Your task to perform on an android device: What's the weather today? Image 0: 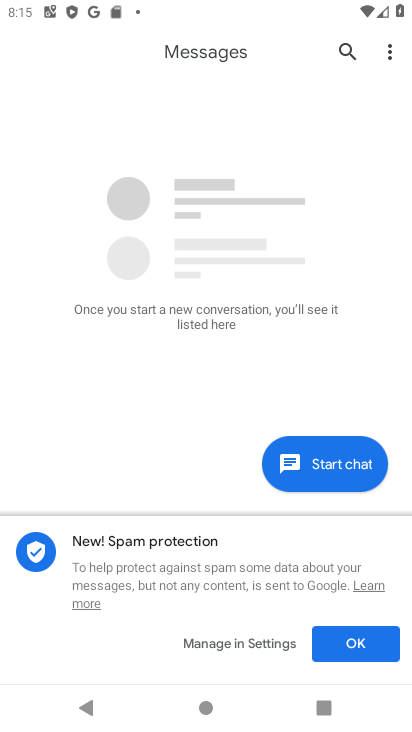
Step 0: press home button
Your task to perform on an android device: What's the weather today? Image 1: 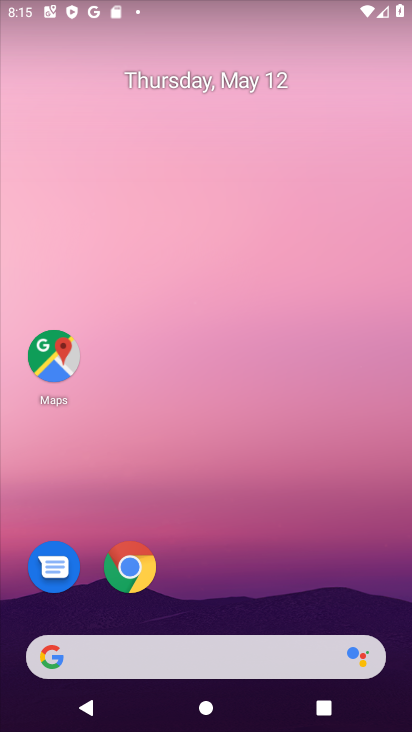
Step 1: drag from (276, 609) to (266, 146)
Your task to perform on an android device: What's the weather today? Image 2: 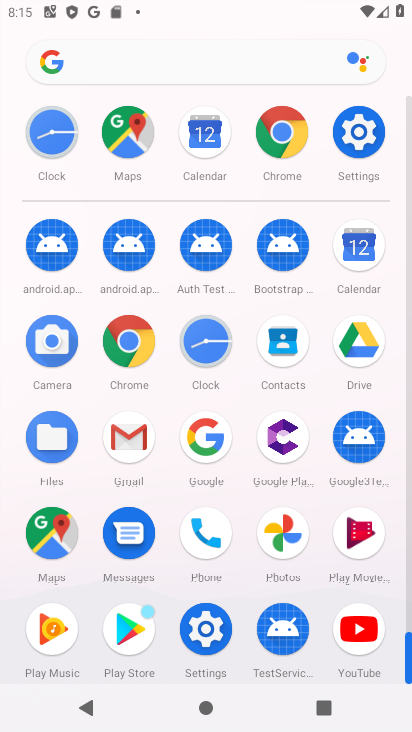
Step 2: click (212, 446)
Your task to perform on an android device: What's the weather today? Image 3: 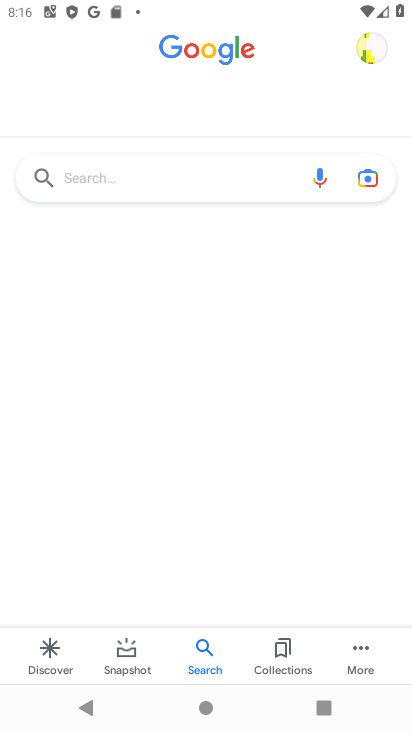
Step 3: click (93, 172)
Your task to perform on an android device: What's the weather today? Image 4: 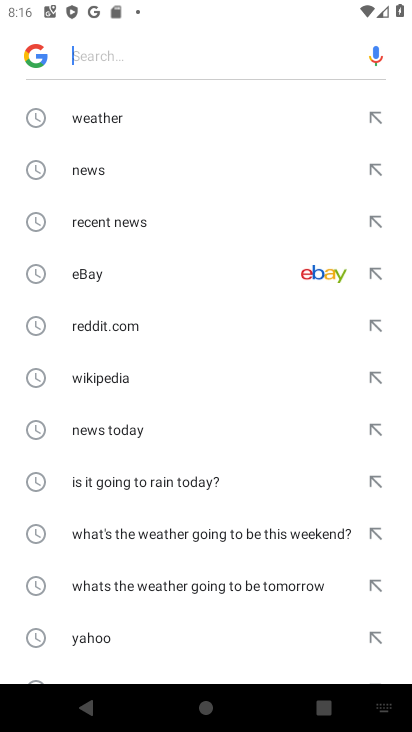
Step 4: click (132, 117)
Your task to perform on an android device: What's the weather today? Image 5: 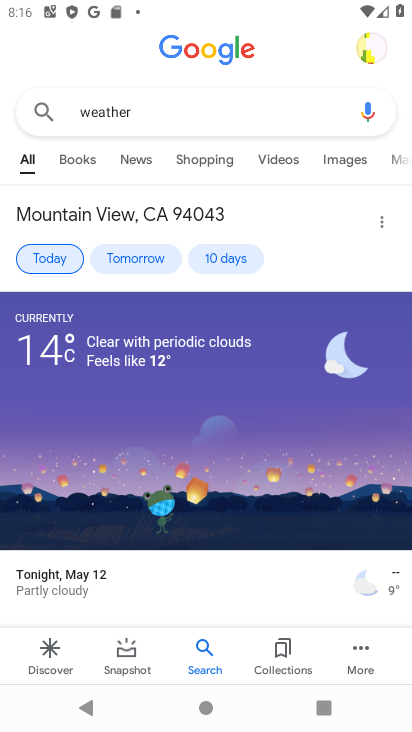
Step 5: task complete